Your task to perform on an android device: Open Google Chrome and click the shortcut for Amazon.com Image 0: 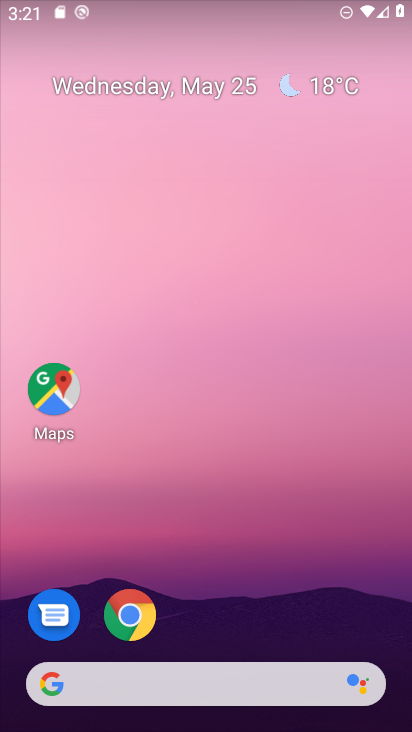
Step 0: click (131, 613)
Your task to perform on an android device: Open Google Chrome and click the shortcut for Amazon.com Image 1: 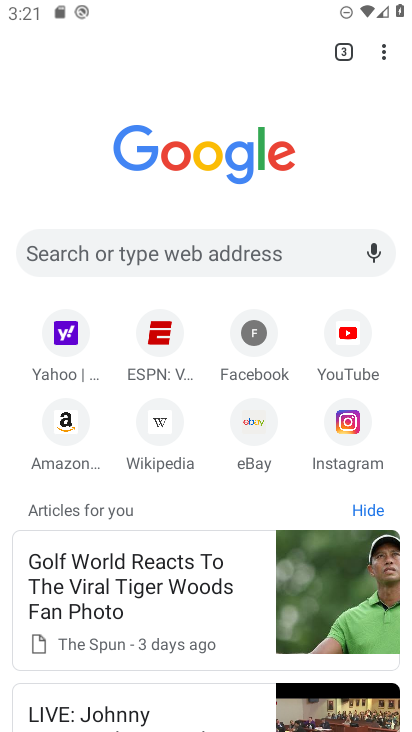
Step 1: click (67, 413)
Your task to perform on an android device: Open Google Chrome and click the shortcut for Amazon.com Image 2: 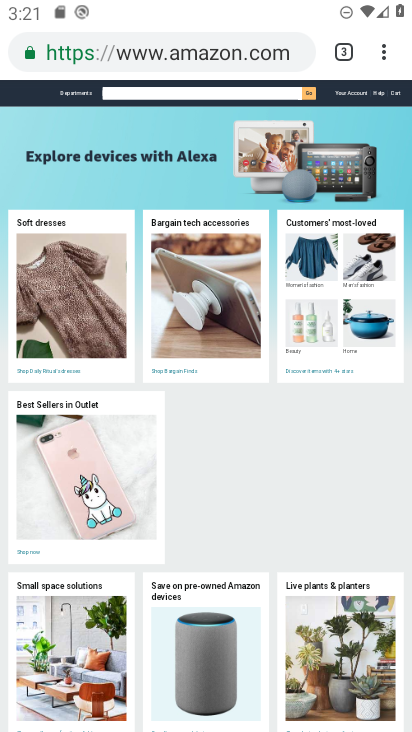
Step 2: task complete